Your task to perform on an android device: empty trash in the gmail app Image 0: 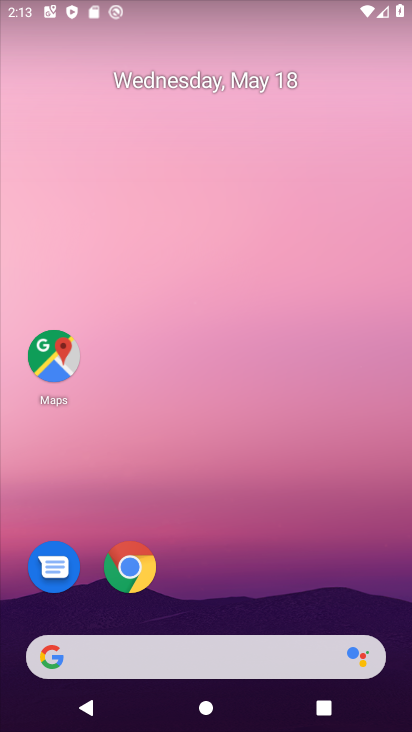
Step 0: click (255, 211)
Your task to perform on an android device: empty trash in the gmail app Image 1: 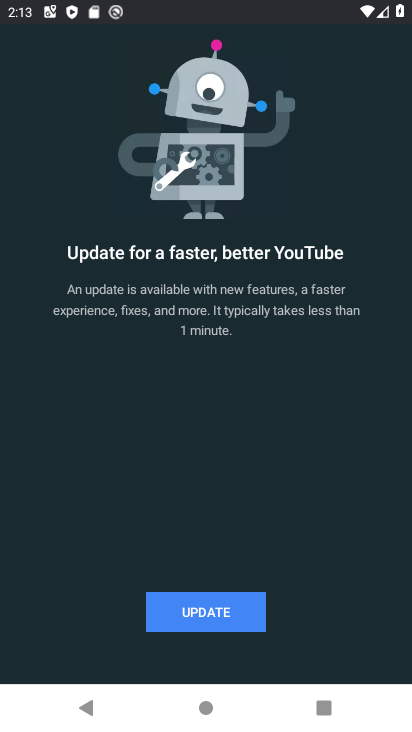
Step 1: press back button
Your task to perform on an android device: empty trash in the gmail app Image 2: 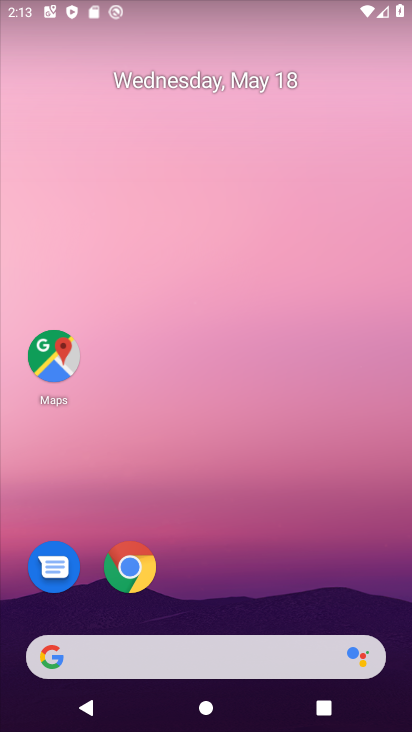
Step 2: drag from (228, 592) to (256, 236)
Your task to perform on an android device: empty trash in the gmail app Image 3: 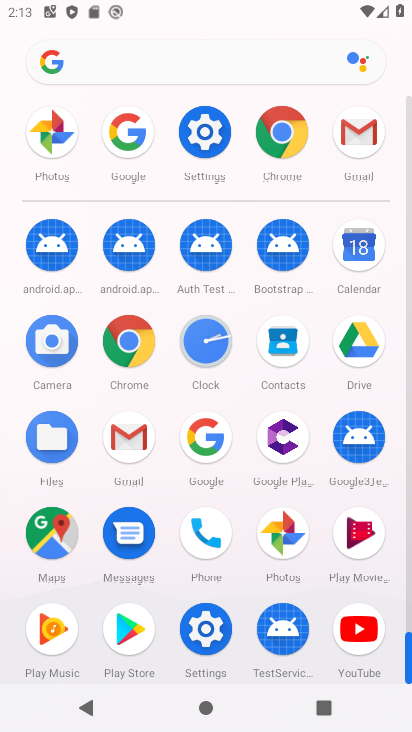
Step 3: click (347, 130)
Your task to perform on an android device: empty trash in the gmail app Image 4: 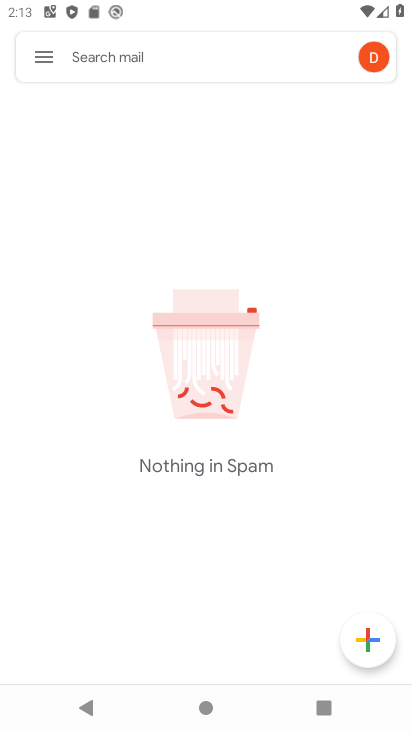
Step 4: click (42, 57)
Your task to perform on an android device: empty trash in the gmail app Image 5: 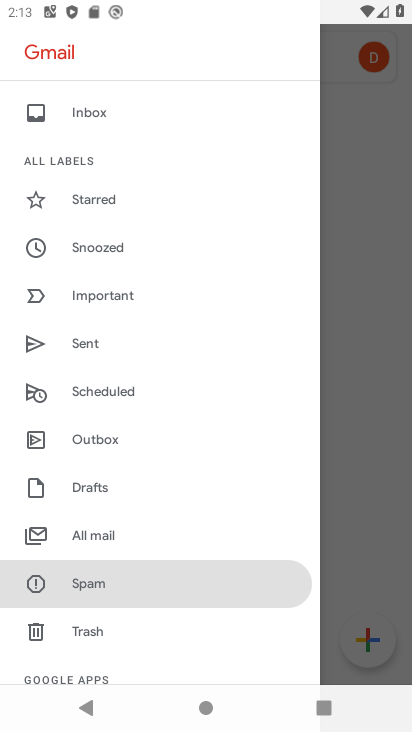
Step 5: click (107, 640)
Your task to perform on an android device: empty trash in the gmail app Image 6: 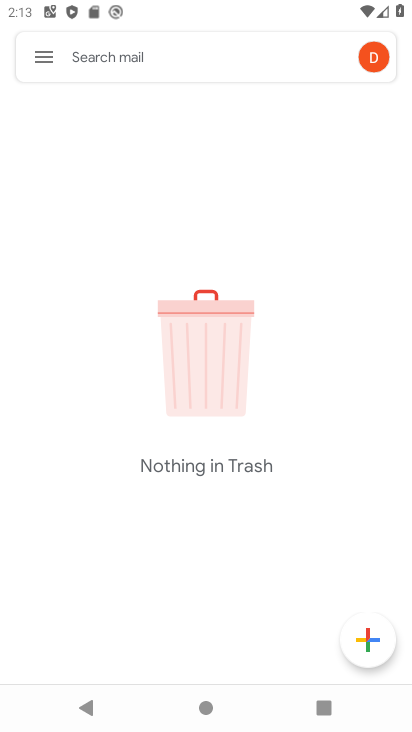
Step 6: task complete